Your task to perform on an android device: open chrome and create a bookmark for the current page Image 0: 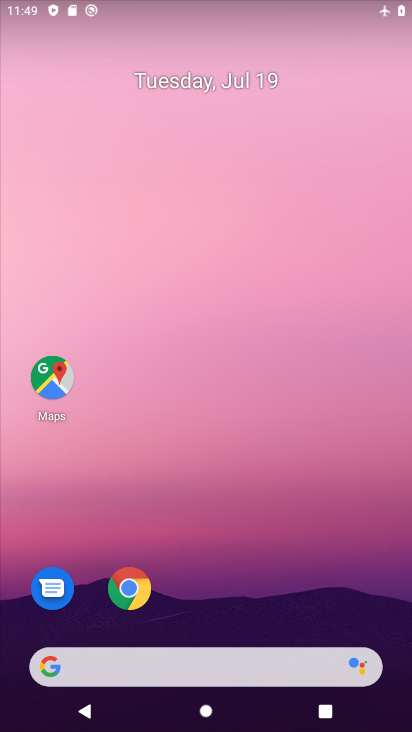
Step 0: drag from (247, 573) to (257, 205)
Your task to perform on an android device: open chrome and create a bookmark for the current page Image 1: 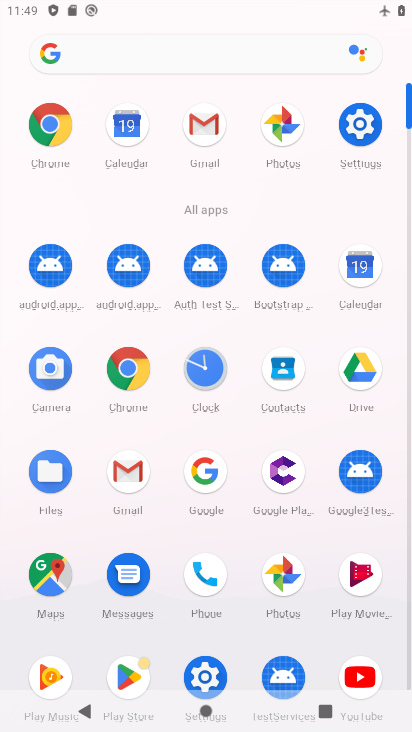
Step 1: click (131, 370)
Your task to perform on an android device: open chrome and create a bookmark for the current page Image 2: 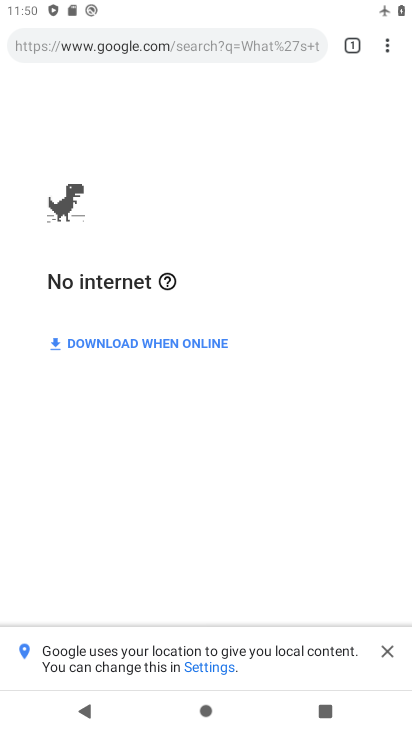
Step 2: click (385, 47)
Your task to perform on an android device: open chrome and create a bookmark for the current page Image 3: 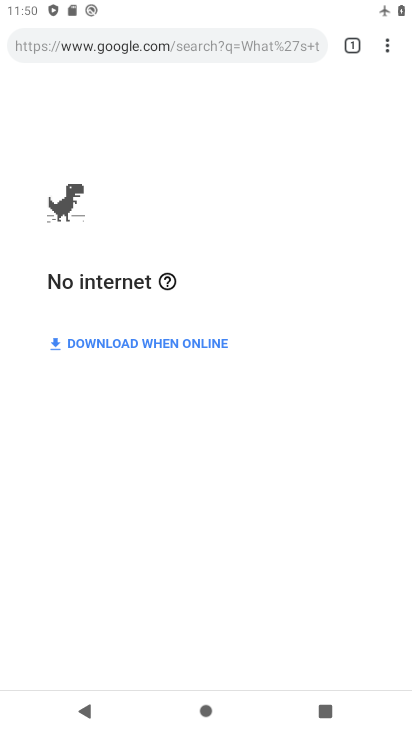
Step 3: click (384, 39)
Your task to perform on an android device: open chrome and create a bookmark for the current page Image 4: 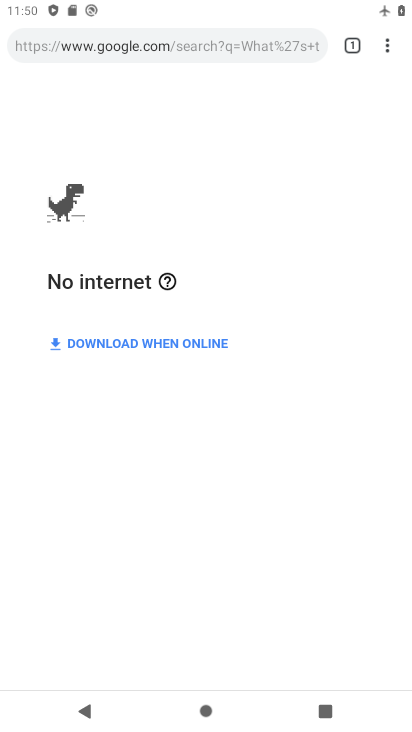
Step 4: click (381, 35)
Your task to perform on an android device: open chrome and create a bookmark for the current page Image 5: 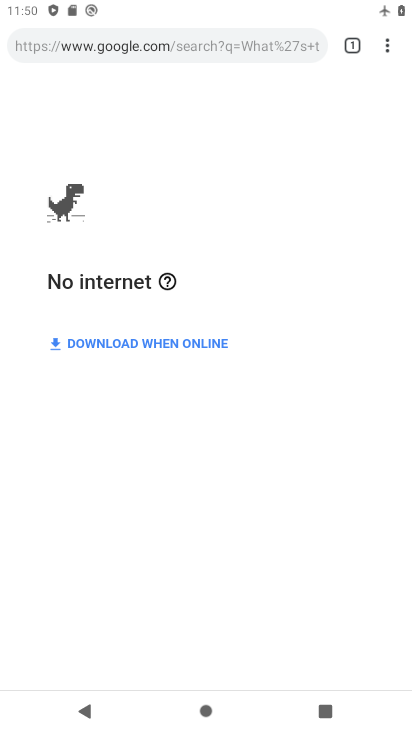
Step 5: click (381, 37)
Your task to perform on an android device: open chrome and create a bookmark for the current page Image 6: 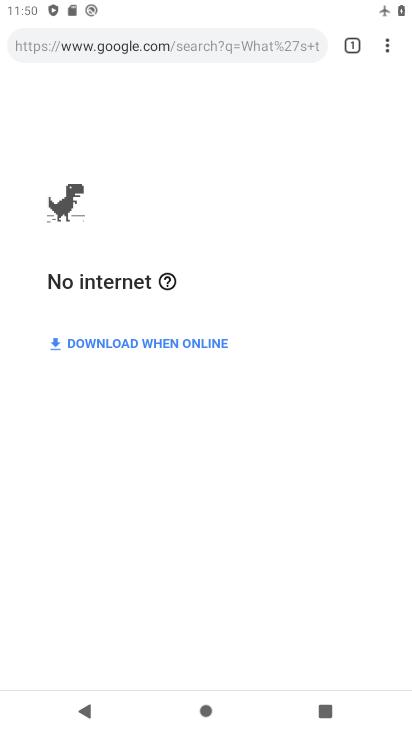
Step 6: click (381, 43)
Your task to perform on an android device: open chrome and create a bookmark for the current page Image 7: 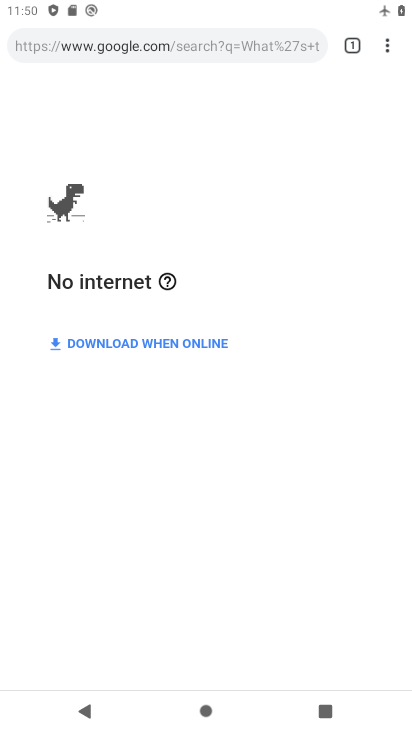
Step 7: click (389, 46)
Your task to perform on an android device: open chrome and create a bookmark for the current page Image 8: 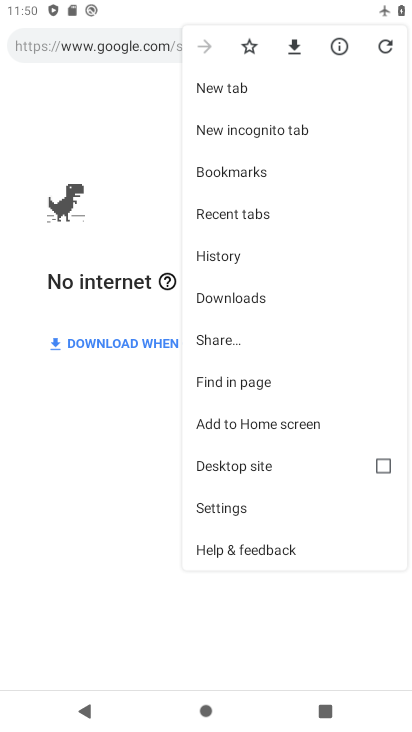
Step 8: click (252, 44)
Your task to perform on an android device: open chrome and create a bookmark for the current page Image 9: 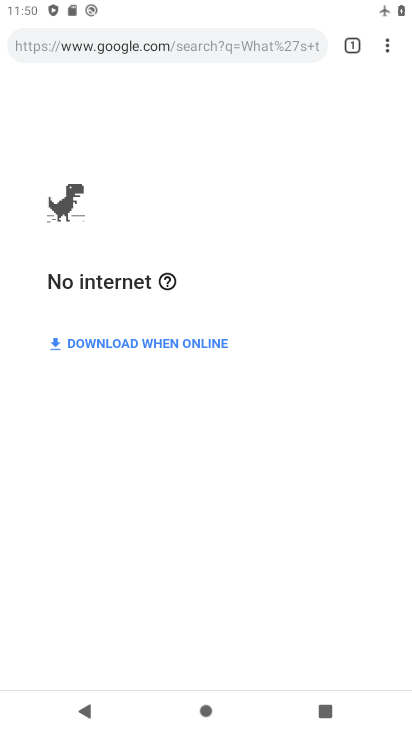
Step 9: task complete